Your task to perform on an android device: open app "DoorDash - Dasher" (install if not already installed) and enter user name: "resistor@inbox.com" and password: "cholera" Image 0: 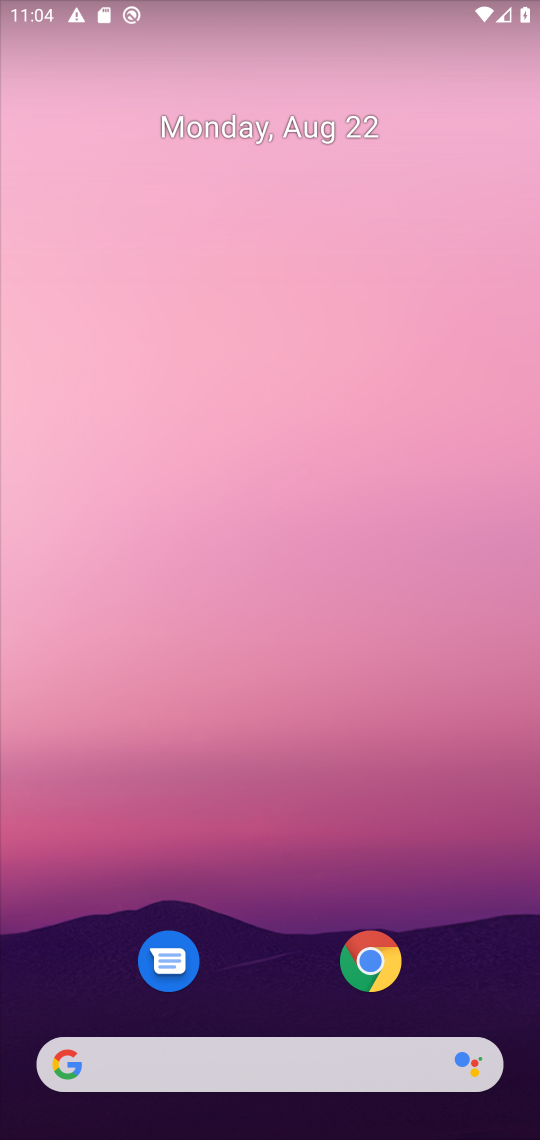
Step 0: task complete